Your task to perform on an android device: turn on airplane mode Image 0: 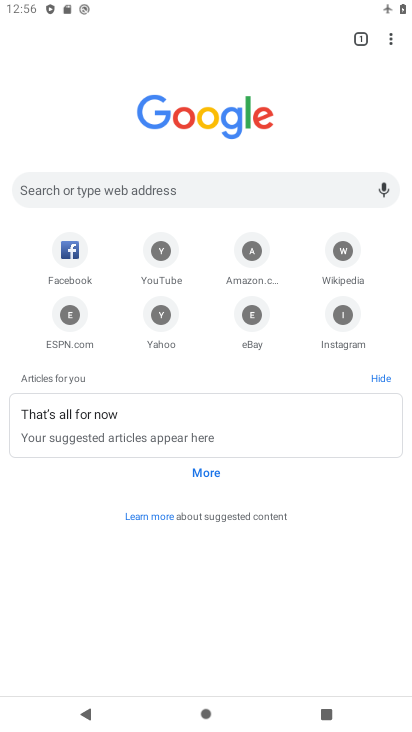
Step 0: press home button
Your task to perform on an android device: turn on airplane mode Image 1: 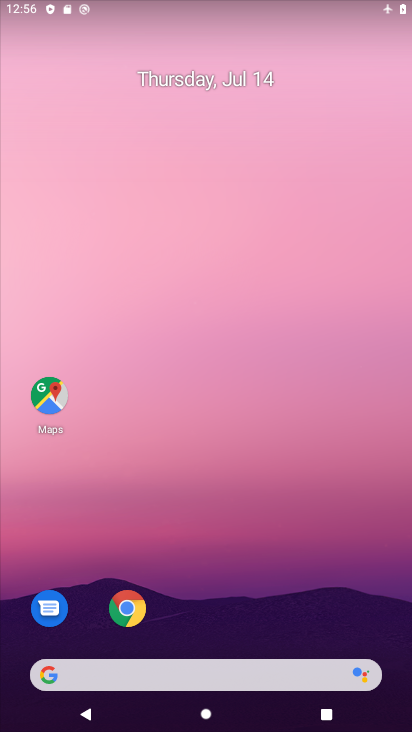
Step 1: drag from (203, 638) to (207, 173)
Your task to perform on an android device: turn on airplane mode Image 2: 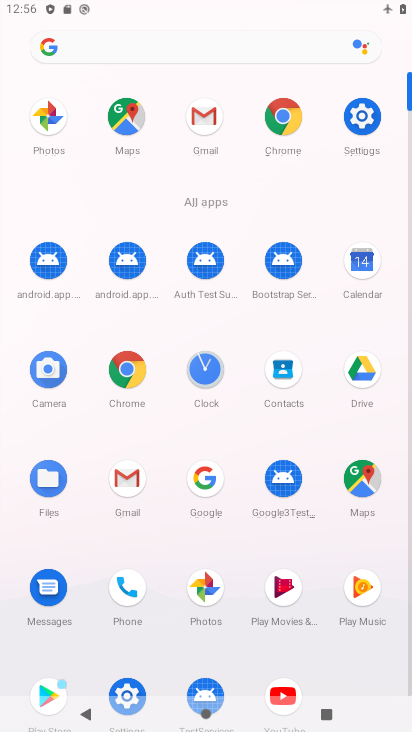
Step 2: click (360, 122)
Your task to perform on an android device: turn on airplane mode Image 3: 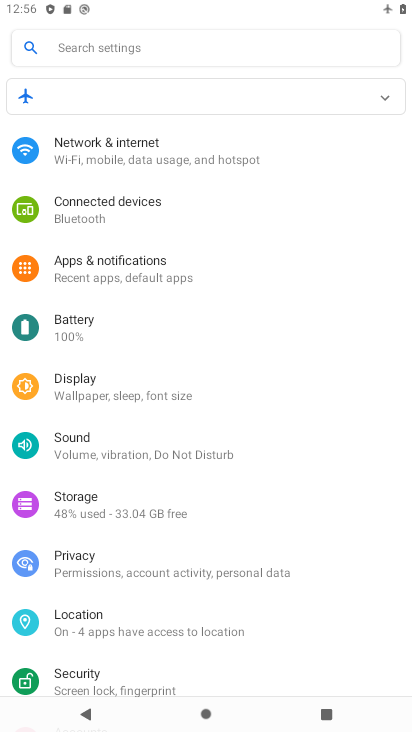
Step 3: click (113, 156)
Your task to perform on an android device: turn on airplane mode Image 4: 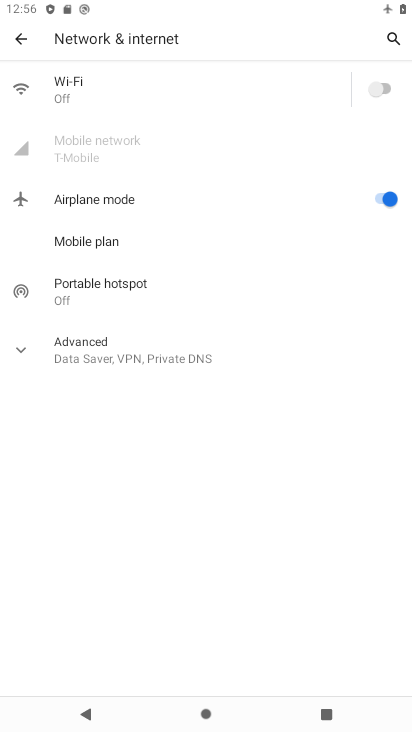
Step 4: task complete